Your task to perform on an android device: find which apps use the phone's location Image 0: 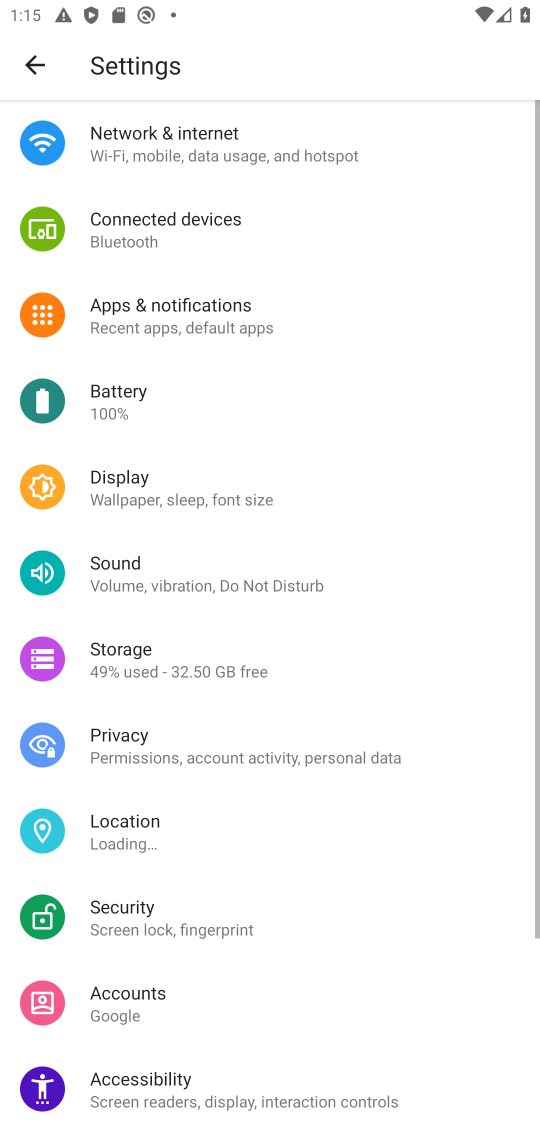
Step 0: press home button
Your task to perform on an android device: find which apps use the phone's location Image 1: 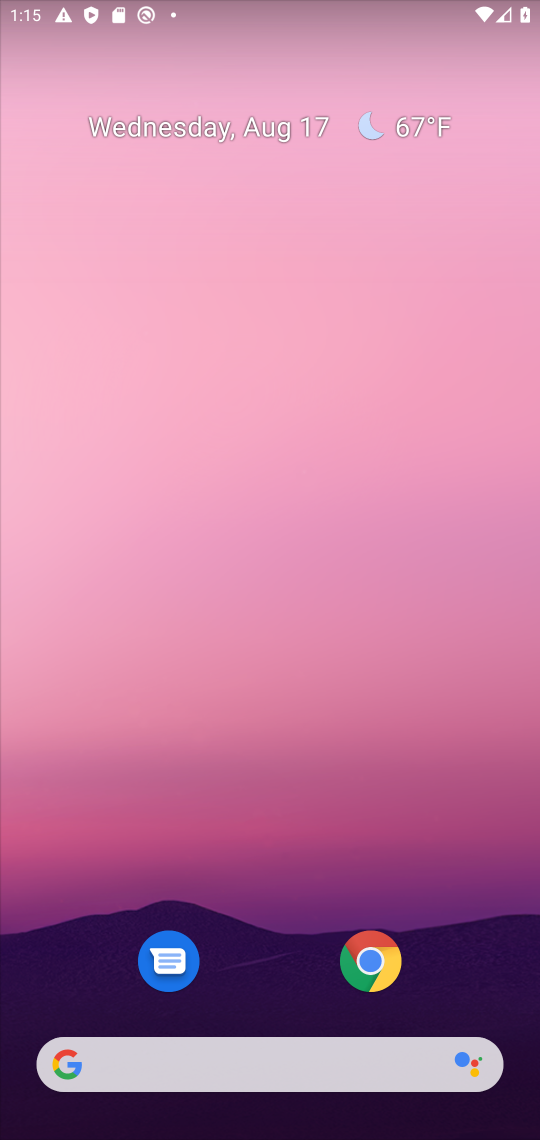
Step 1: drag from (254, 983) to (434, 77)
Your task to perform on an android device: find which apps use the phone's location Image 2: 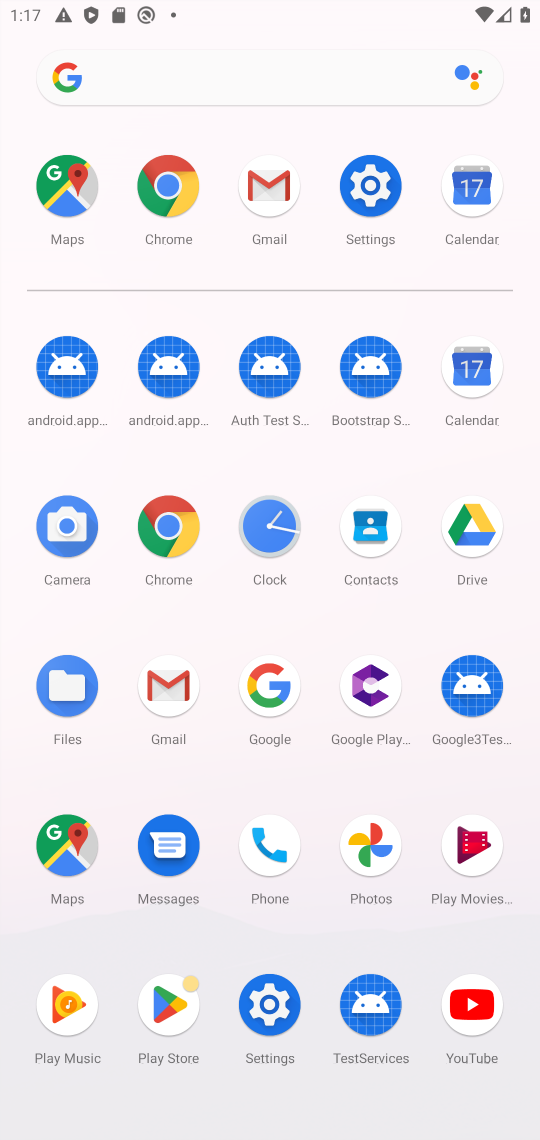
Step 2: click (265, 1042)
Your task to perform on an android device: find which apps use the phone's location Image 3: 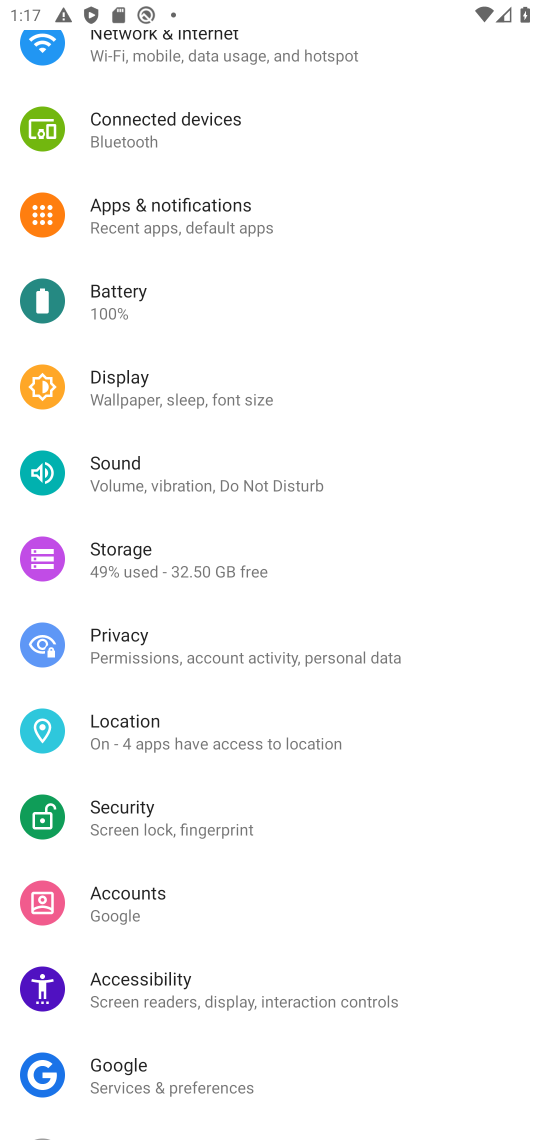
Step 3: click (188, 743)
Your task to perform on an android device: find which apps use the phone's location Image 4: 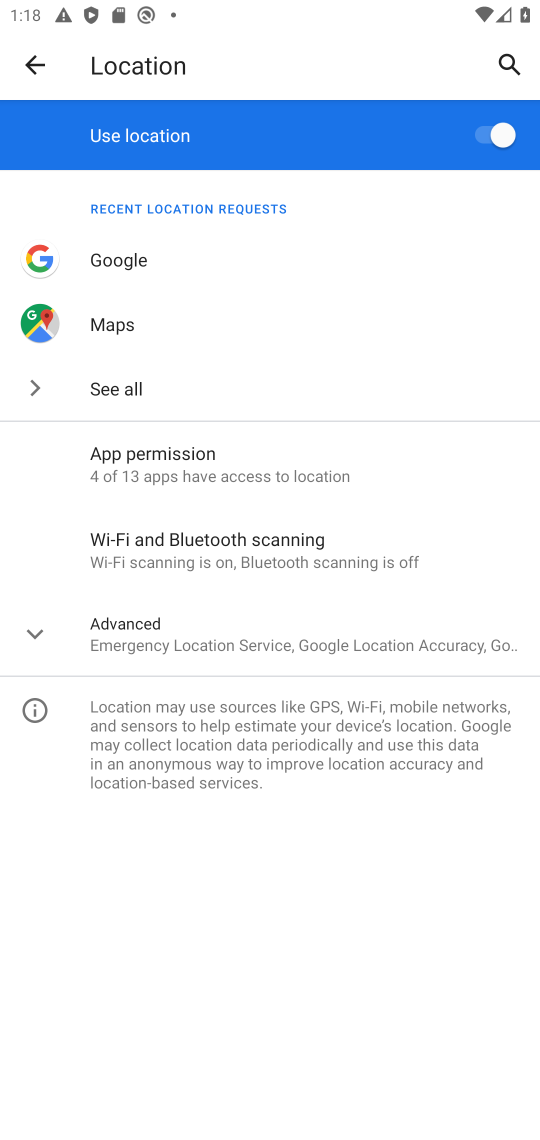
Step 4: click (222, 452)
Your task to perform on an android device: find which apps use the phone's location Image 5: 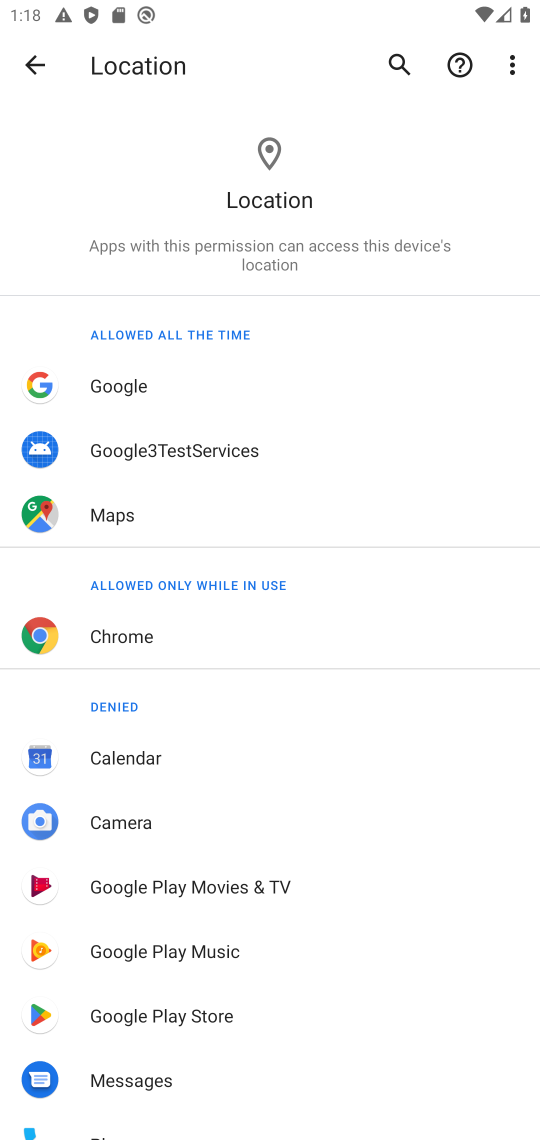
Step 5: task complete